Your task to perform on an android device: Open calendar and show me the fourth week of next month Image 0: 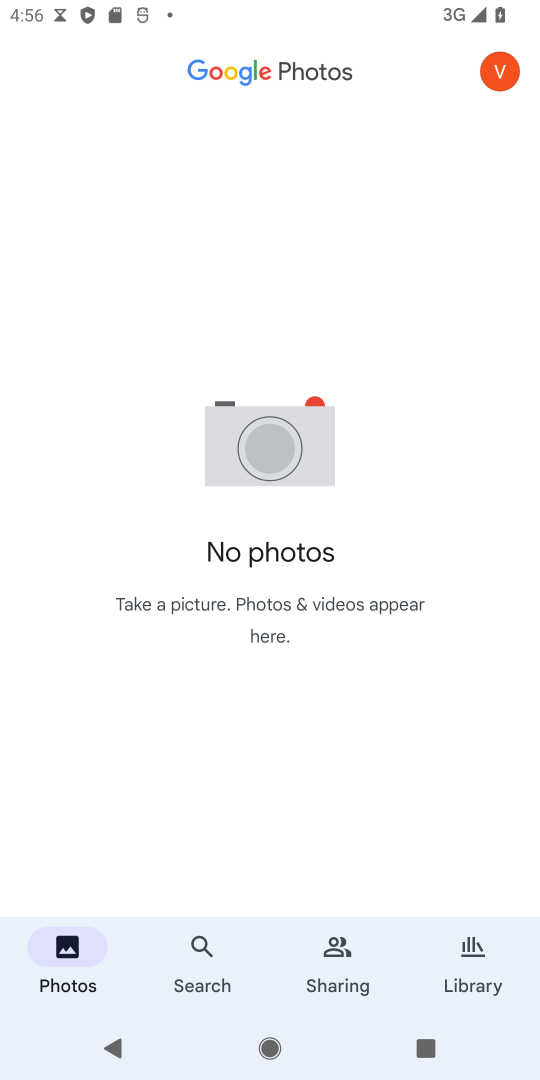
Step 0: press home button
Your task to perform on an android device: Open calendar and show me the fourth week of next month Image 1: 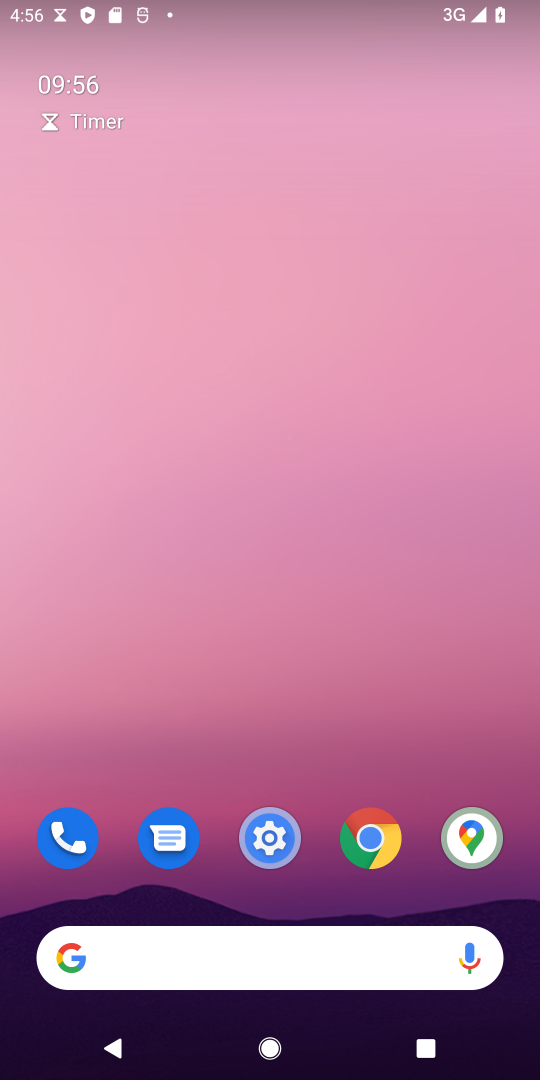
Step 1: drag from (321, 795) to (309, 69)
Your task to perform on an android device: Open calendar and show me the fourth week of next month Image 2: 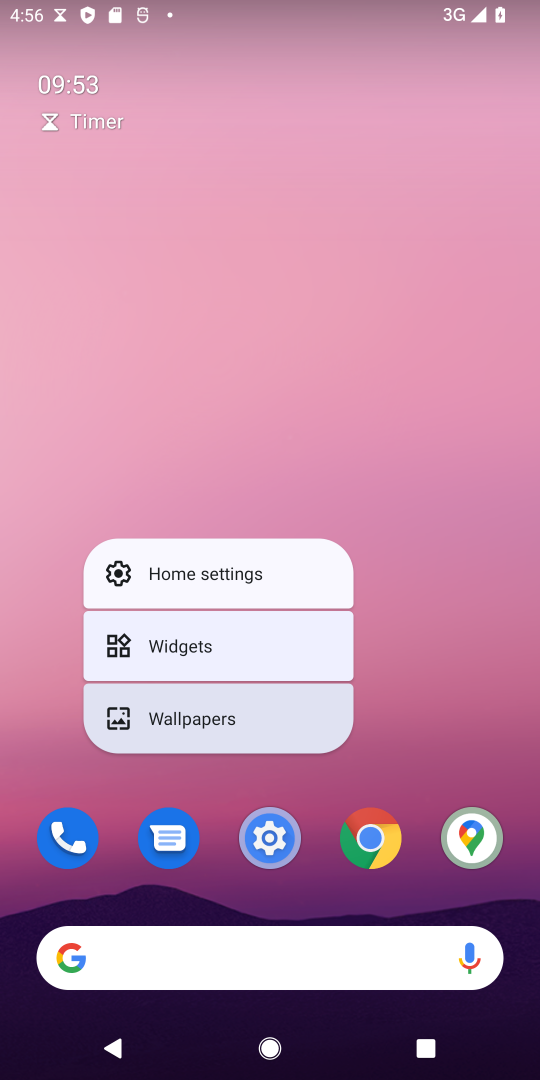
Step 2: drag from (426, 832) to (329, 53)
Your task to perform on an android device: Open calendar and show me the fourth week of next month Image 3: 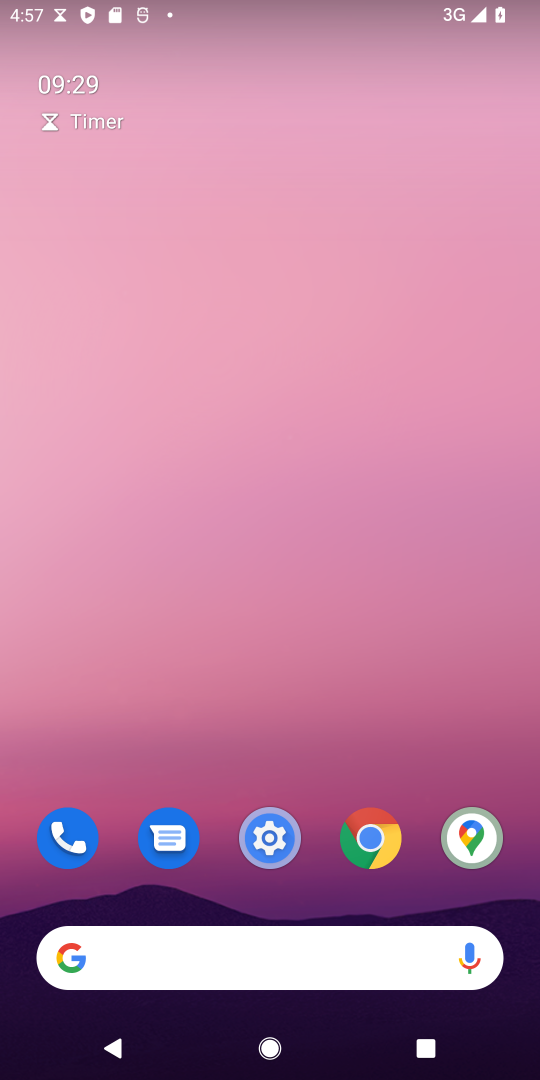
Step 3: drag from (312, 809) to (441, 0)
Your task to perform on an android device: Open calendar and show me the fourth week of next month Image 4: 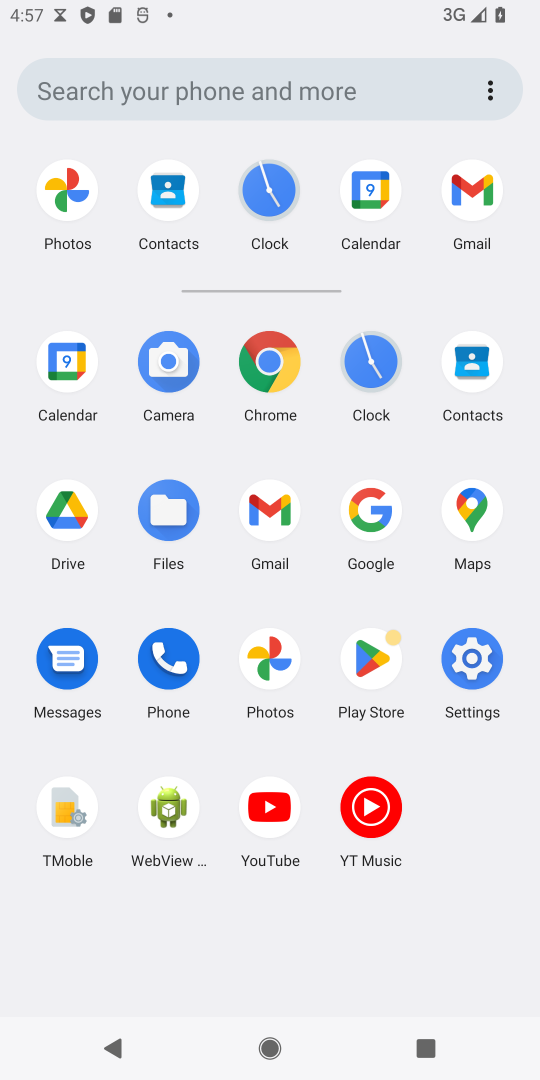
Step 4: click (63, 377)
Your task to perform on an android device: Open calendar and show me the fourth week of next month Image 5: 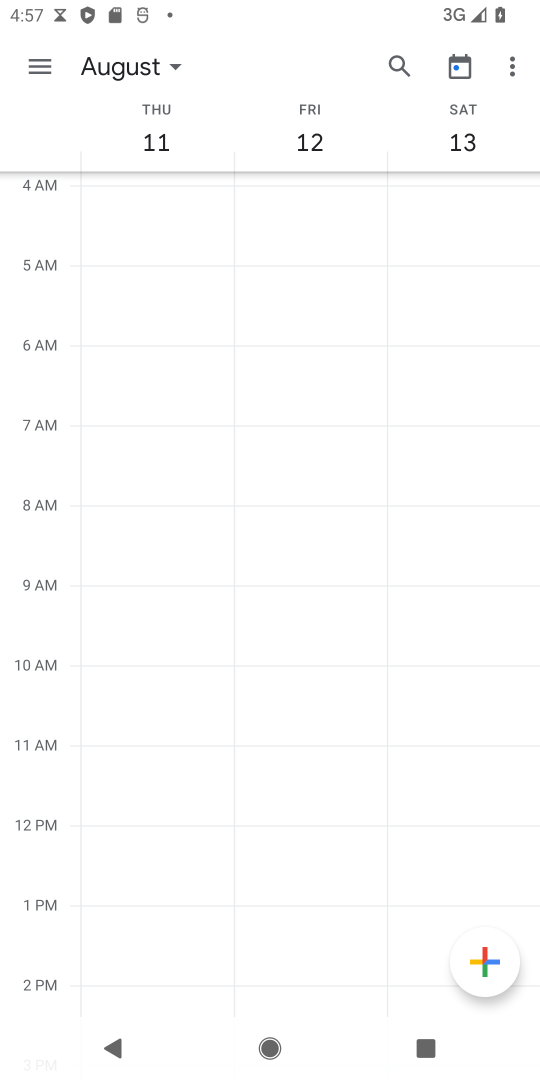
Step 5: click (172, 56)
Your task to perform on an android device: Open calendar and show me the fourth week of next month Image 6: 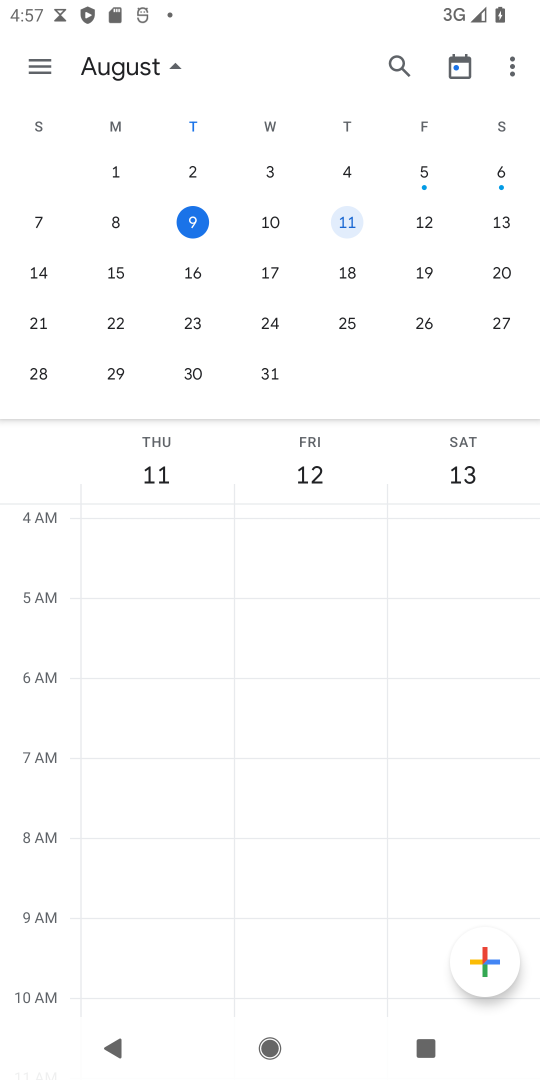
Step 6: drag from (495, 276) to (4, 246)
Your task to perform on an android device: Open calendar and show me the fourth week of next month Image 7: 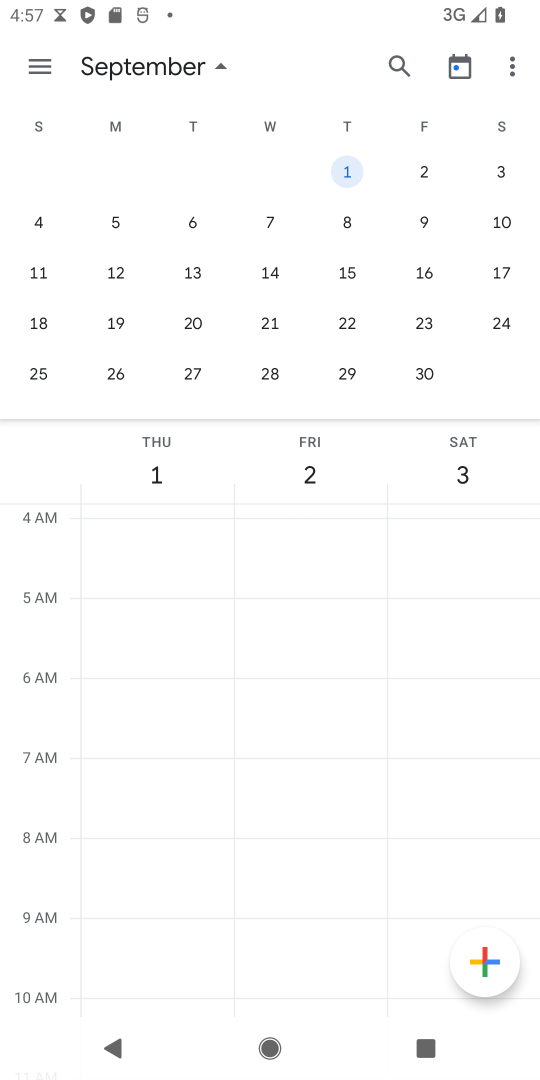
Step 7: click (271, 388)
Your task to perform on an android device: Open calendar and show me the fourth week of next month Image 8: 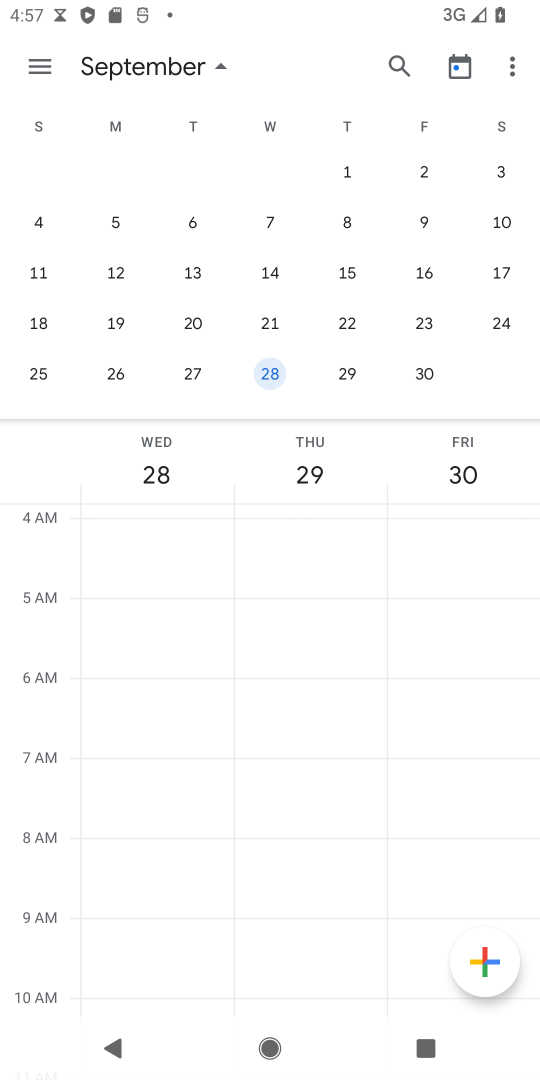
Step 8: click (29, 62)
Your task to perform on an android device: Open calendar and show me the fourth week of next month Image 9: 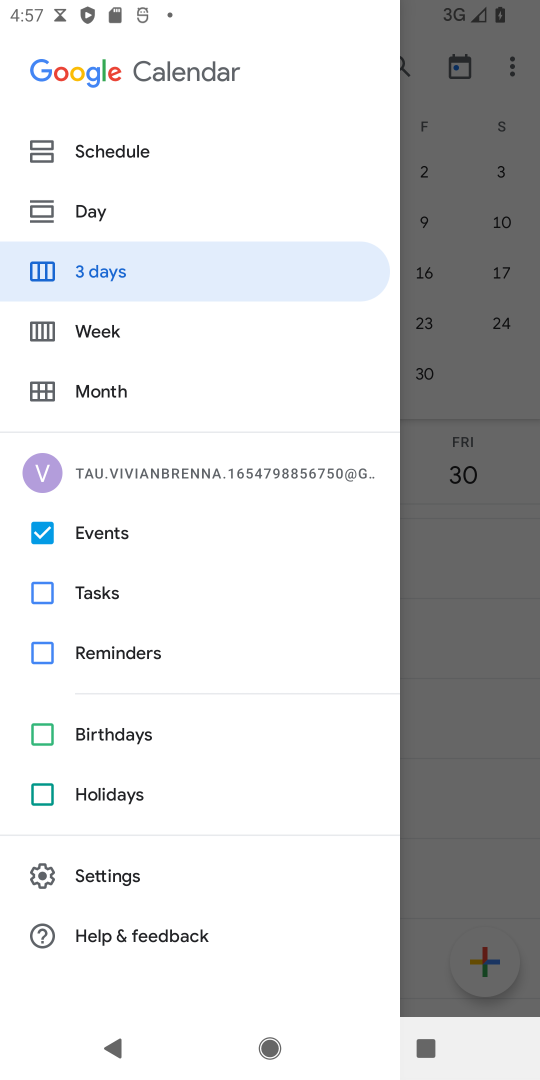
Step 9: click (125, 328)
Your task to perform on an android device: Open calendar and show me the fourth week of next month Image 10: 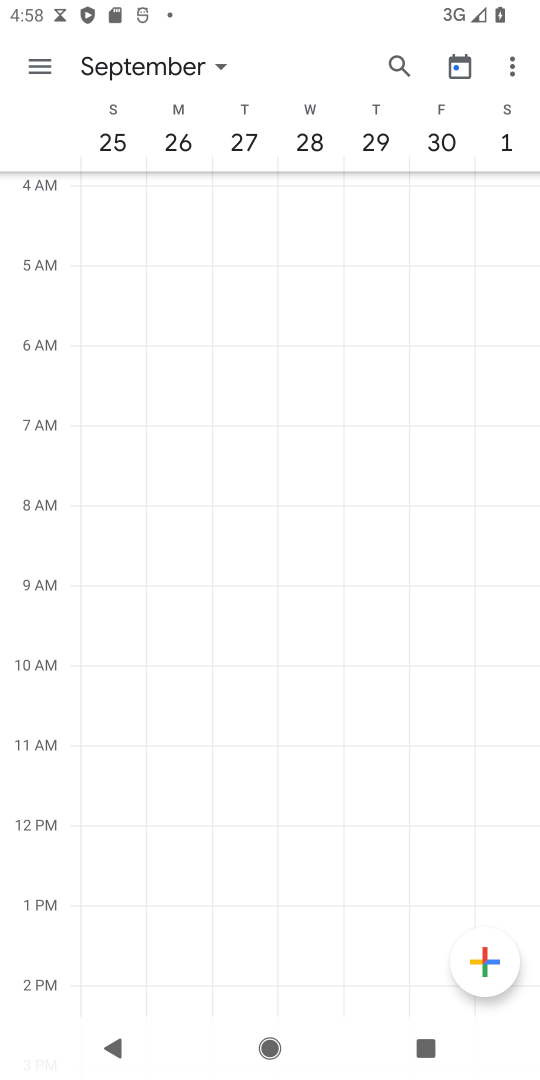
Step 10: task complete